Your task to perform on an android device: Open the calendar app, open the side menu, and click the "Day" option Image 0: 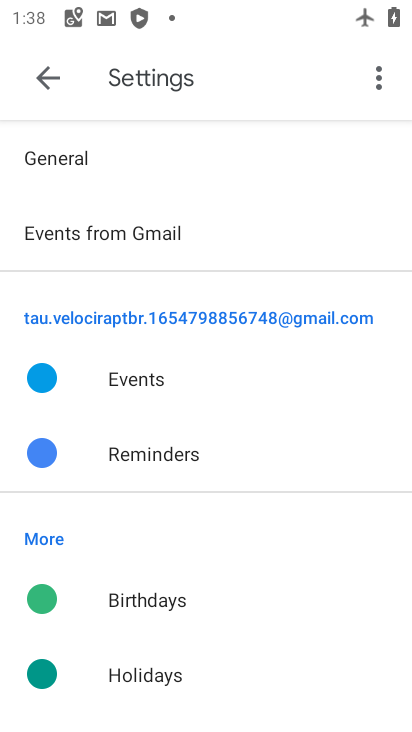
Step 0: press home button
Your task to perform on an android device: Open the calendar app, open the side menu, and click the "Day" option Image 1: 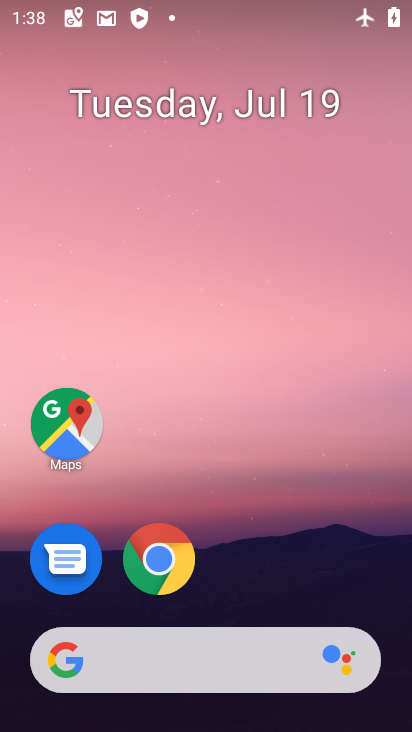
Step 1: drag from (192, 626) to (244, 169)
Your task to perform on an android device: Open the calendar app, open the side menu, and click the "Day" option Image 2: 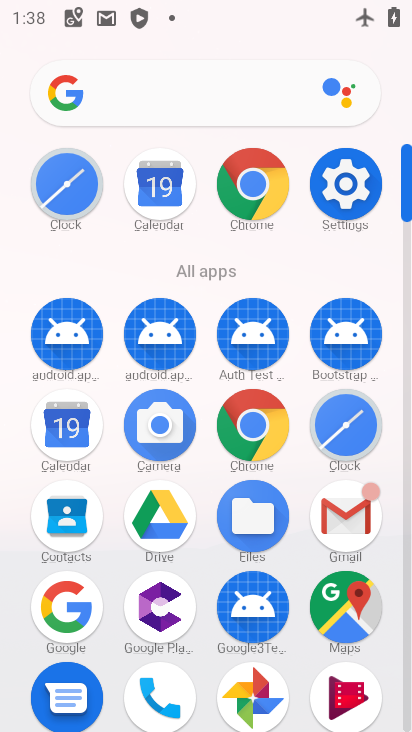
Step 2: click (148, 174)
Your task to perform on an android device: Open the calendar app, open the side menu, and click the "Day" option Image 3: 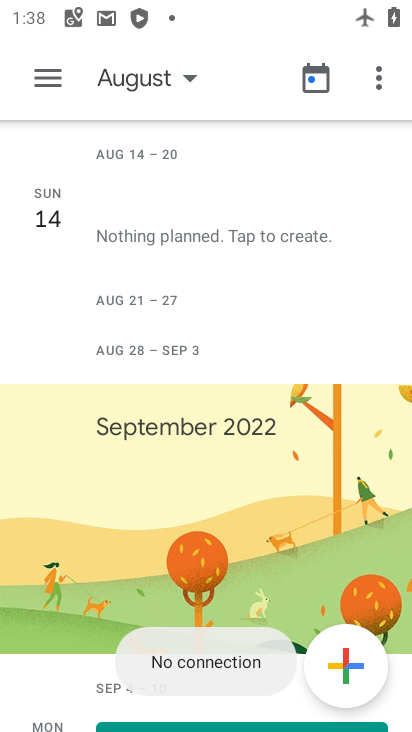
Step 3: click (50, 67)
Your task to perform on an android device: Open the calendar app, open the side menu, and click the "Day" option Image 4: 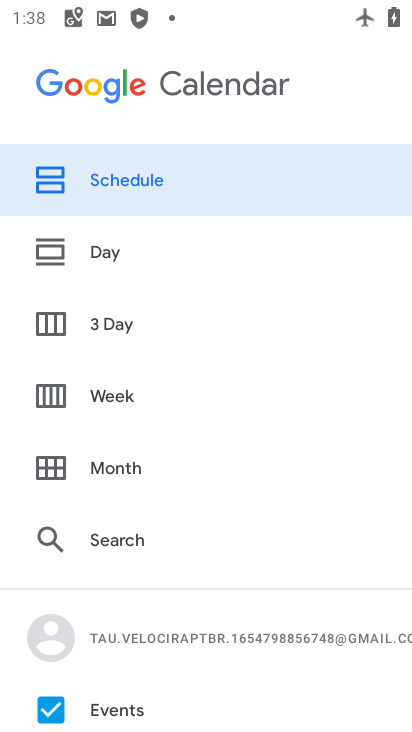
Step 4: click (125, 251)
Your task to perform on an android device: Open the calendar app, open the side menu, and click the "Day" option Image 5: 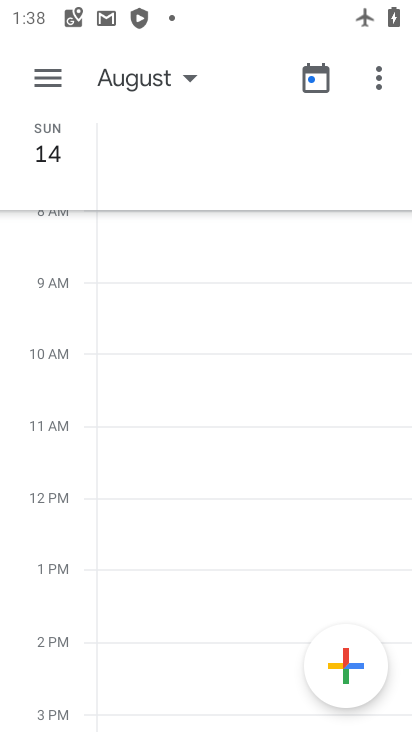
Step 5: task complete